Your task to perform on an android device: visit the assistant section in the google photos Image 0: 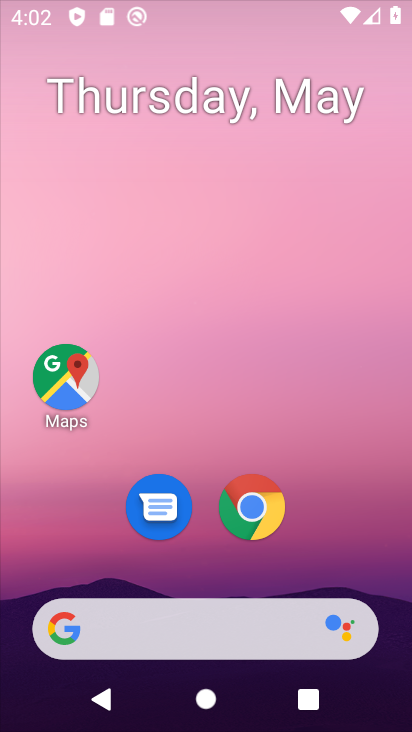
Step 0: drag from (312, 544) to (207, 137)
Your task to perform on an android device: visit the assistant section in the google photos Image 1: 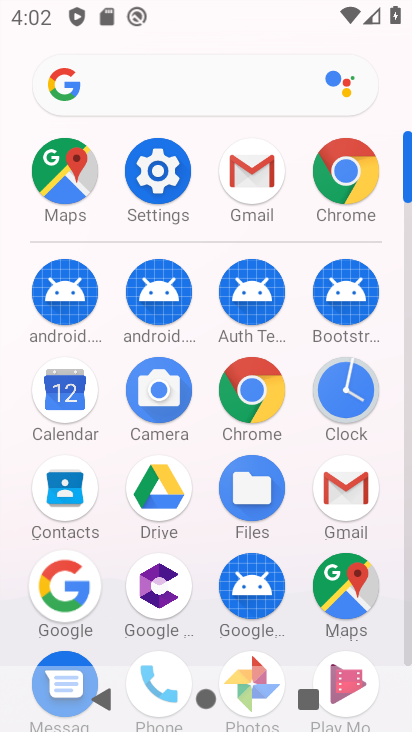
Step 1: drag from (305, 565) to (305, 205)
Your task to perform on an android device: visit the assistant section in the google photos Image 2: 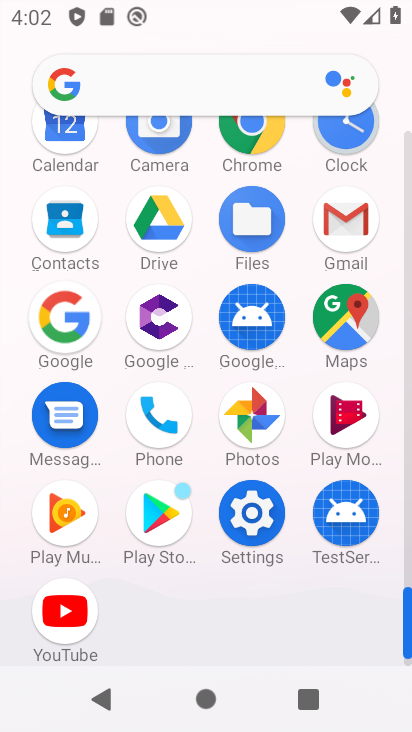
Step 2: drag from (294, 443) to (255, 178)
Your task to perform on an android device: visit the assistant section in the google photos Image 3: 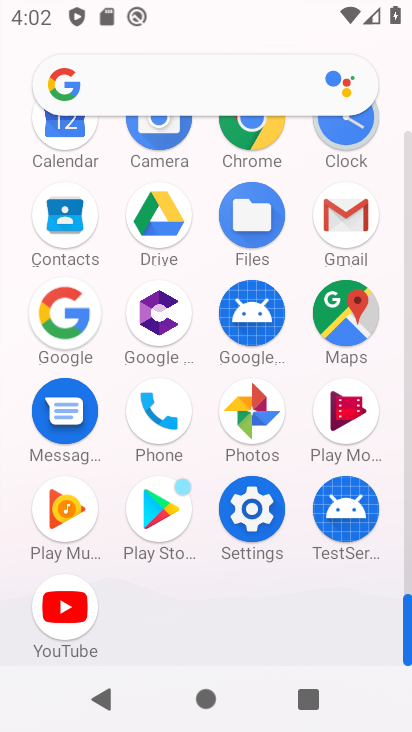
Step 3: click (259, 413)
Your task to perform on an android device: visit the assistant section in the google photos Image 4: 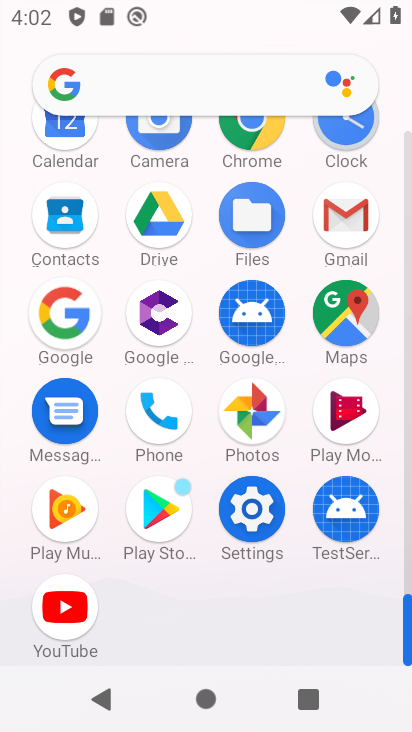
Step 4: click (259, 413)
Your task to perform on an android device: visit the assistant section in the google photos Image 5: 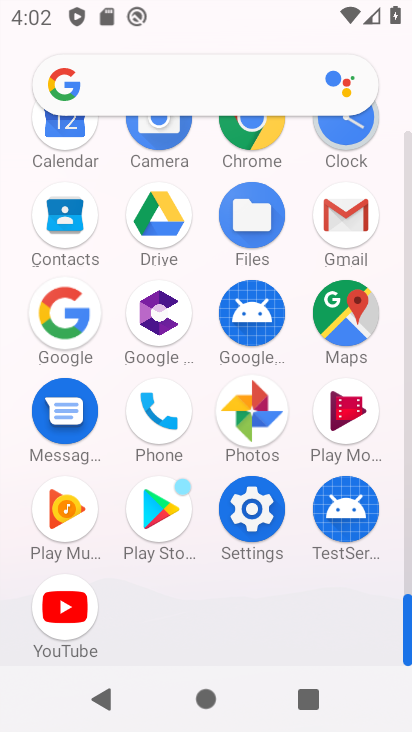
Step 5: click (259, 413)
Your task to perform on an android device: visit the assistant section in the google photos Image 6: 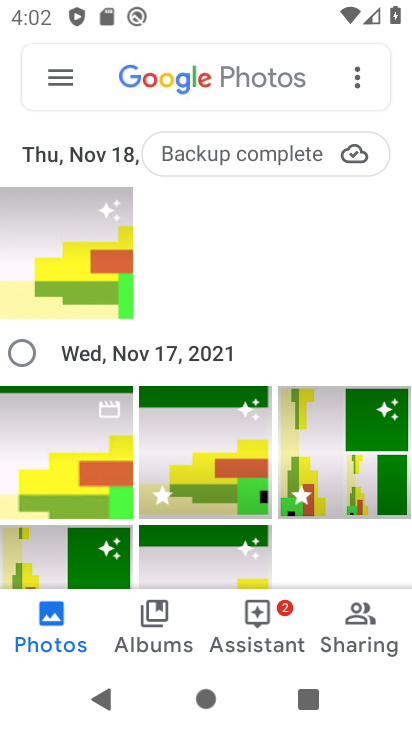
Step 6: click (260, 412)
Your task to perform on an android device: visit the assistant section in the google photos Image 7: 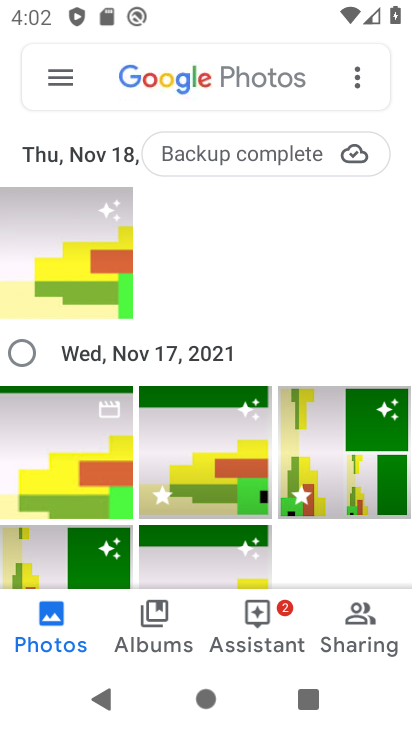
Step 7: click (257, 407)
Your task to perform on an android device: visit the assistant section in the google photos Image 8: 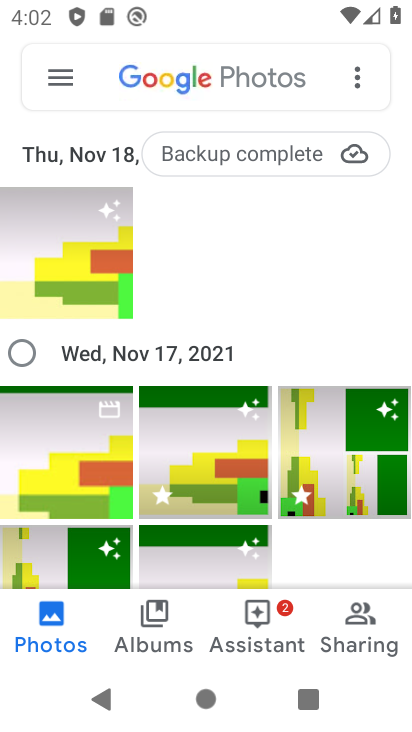
Step 8: click (257, 407)
Your task to perform on an android device: visit the assistant section in the google photos Image 9: 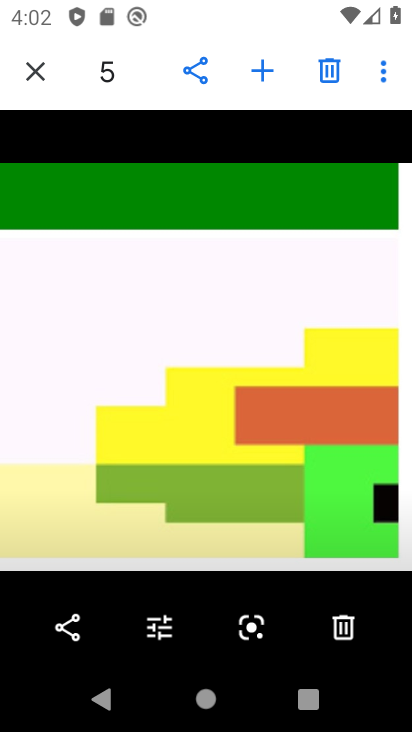
Step 9: click (23, 59)
Your task to perform on an android device: visit the assistant section in the google photos Image 10: 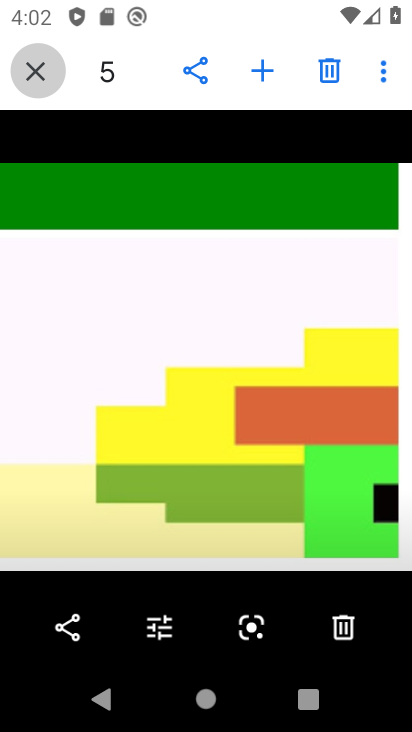
Step 10: click (26, 59)
Your task to perform on an android device: visit the assistant section in the google photos Image 11: 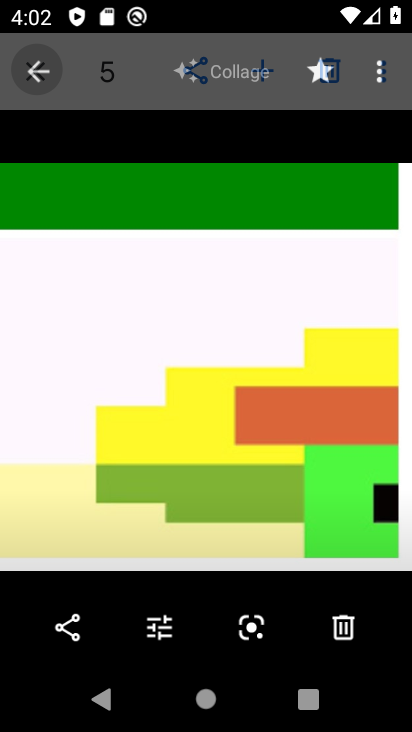
Step 11: click (32, 59)
Your task to perform on an android device: visit the assistant section in the google photos Image 12: 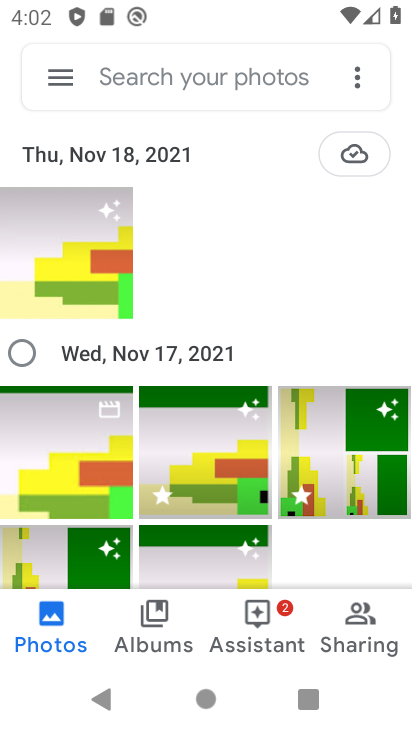
Step 12: click (275, 620)
Your task to perform on an android device: visit the assistant section in the google photos Image 13: 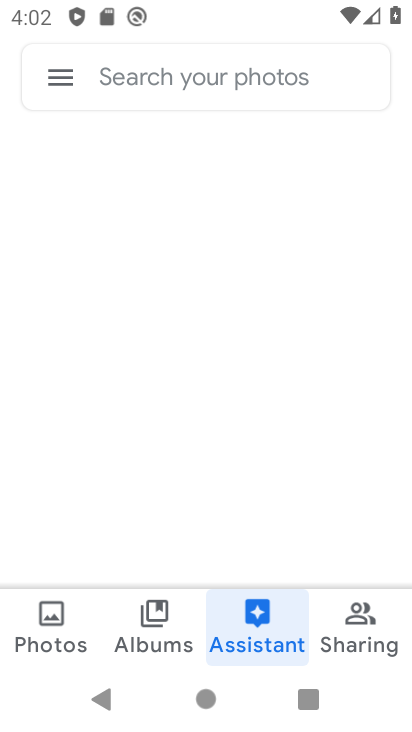
Step 13: click (271, 632)
Your task to perform on an android device: visit the assistant section in the google photos Image 14: 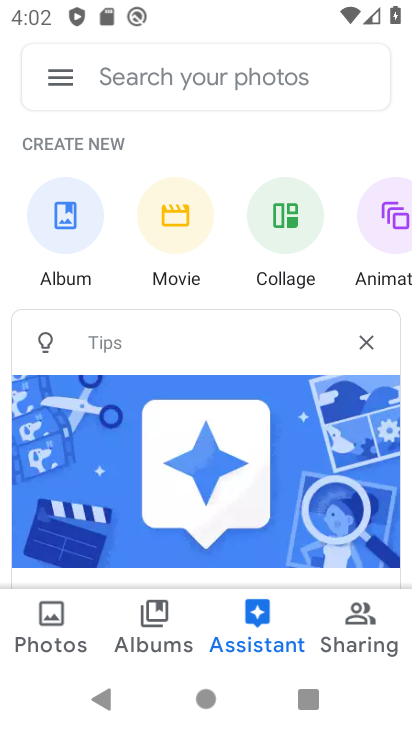
Step 14: task complete